Your task to perform on an android device: open a bookmark in the chrome app Image 0: 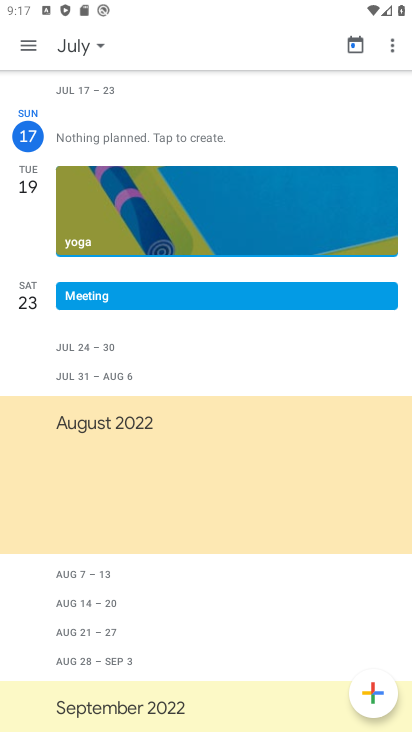
Step 0: press home button
Your task to perform on an android device: open a bookmark in the chrome app Image 1: 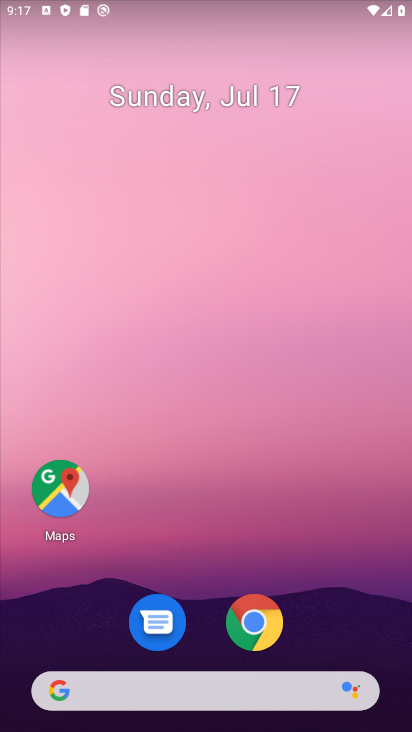
Step 1: click (270, 627)
Your task to perform on an android device: open a bookmark in the chrome app Image 2: 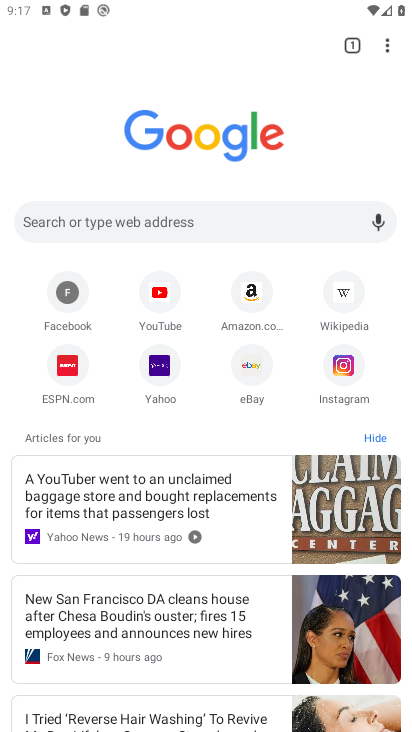
Step 2: click (383, 39)
Your task to perform on an android device: open a bookmark in the chrome app Image 3: 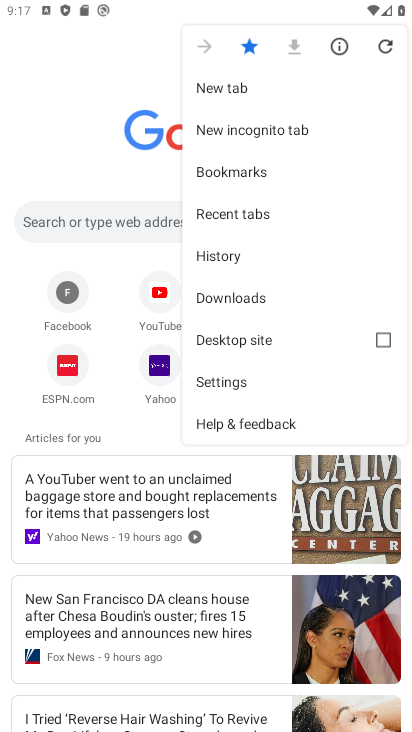
Step 3: click (243, 168)
Your task to perform on an android device: open a bookmark in the chrome app Image 4: 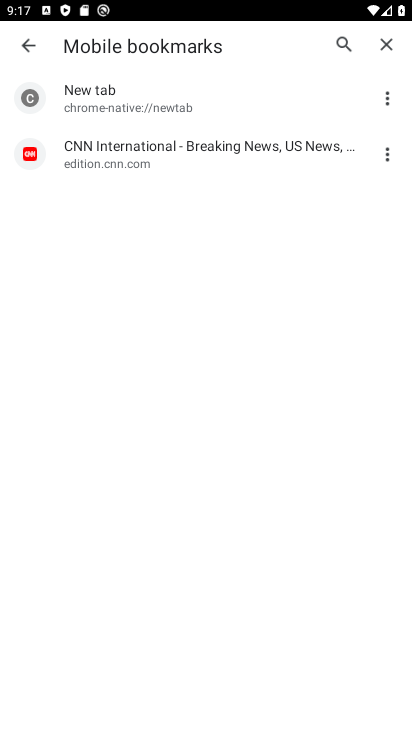
Step 4: click (216, 155)
Your task to perform on an android device: open a bookmark in the chrome app Image 5: 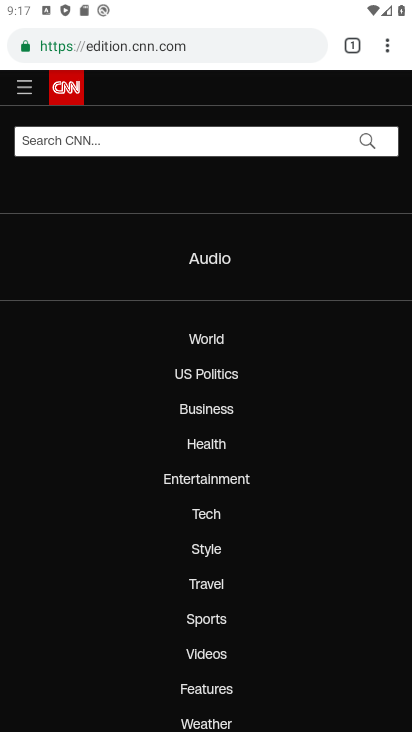
Step 5: task complete